Your task to perform on an android device: Open Wikipedia Image 0: 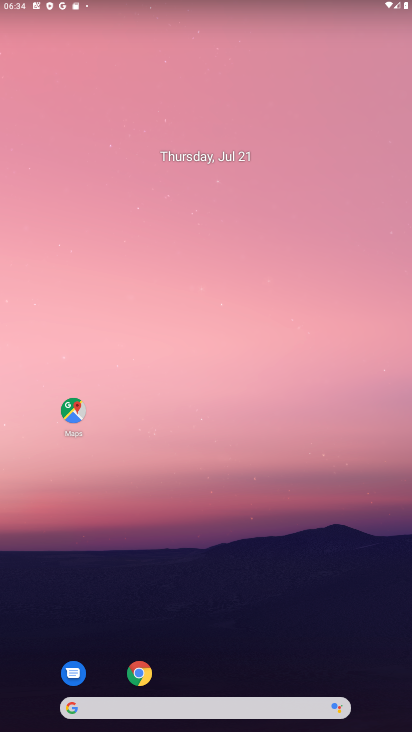
Step 0: click (146, 685)
Your task to perform on an android device: Open Wikipedia Image 1: 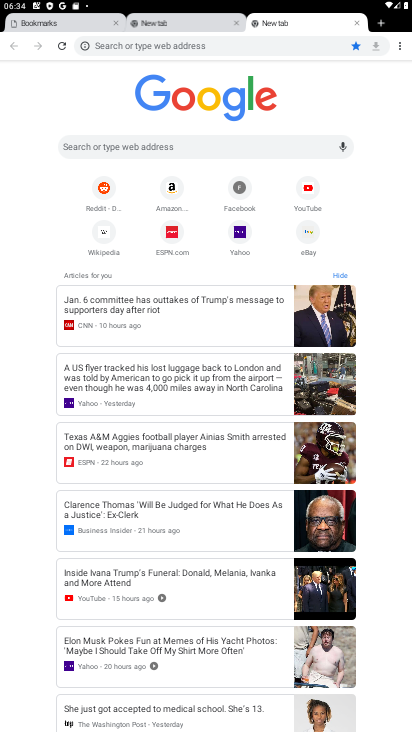
Step 1: click (101, 238)
Your task to perform on an android device: Open Wikipedia Image 2: 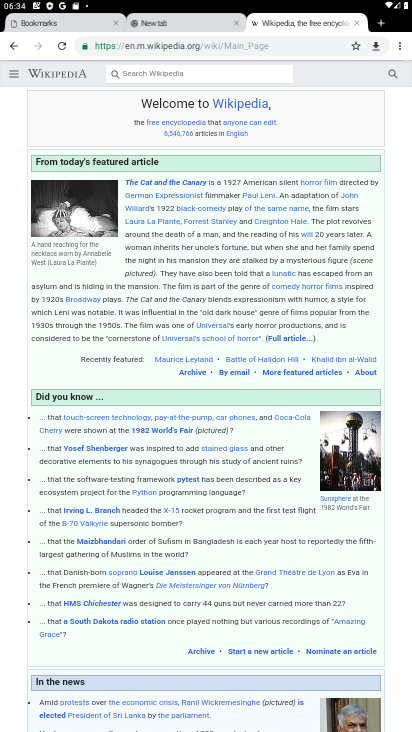
Step 2: task complete